Your task to perform on an android device: add a contact in the contacts app Image 0: 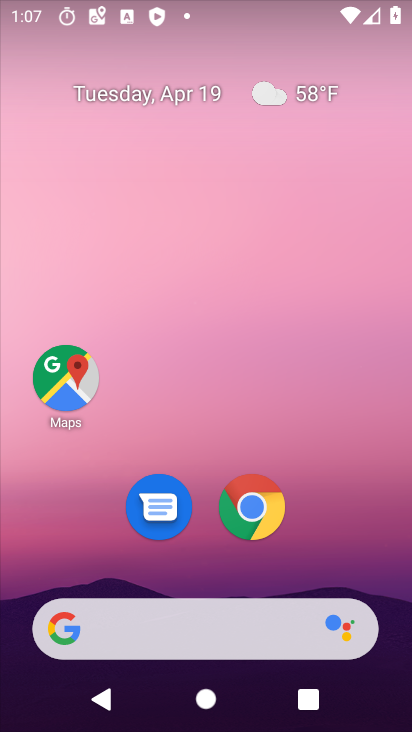
Step 0: drag from (218, 575) to (160, 73)
Your task to perform on an android device: add a contact in the contacts app Image 1: 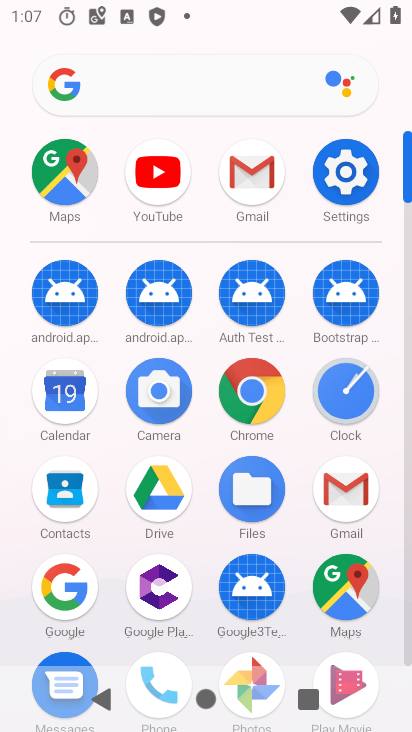
Step 1: click (71, 496)
Your task to perform on an android device: add a contact in the contacts app Image 2: 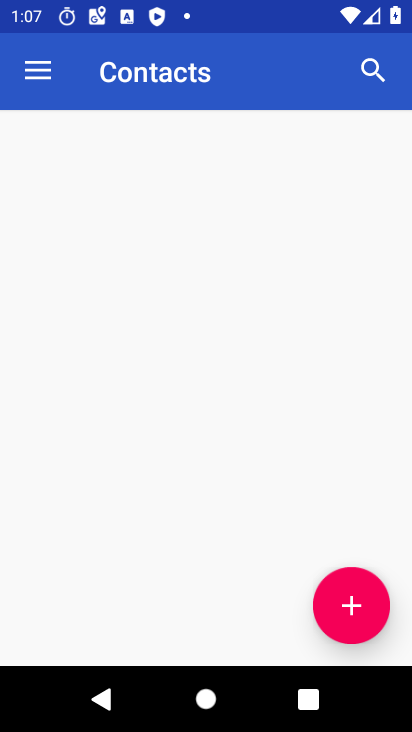
Step 2: click (355, 619)
Your task to perform on an android device: add a contact in the contacts app Image 3: 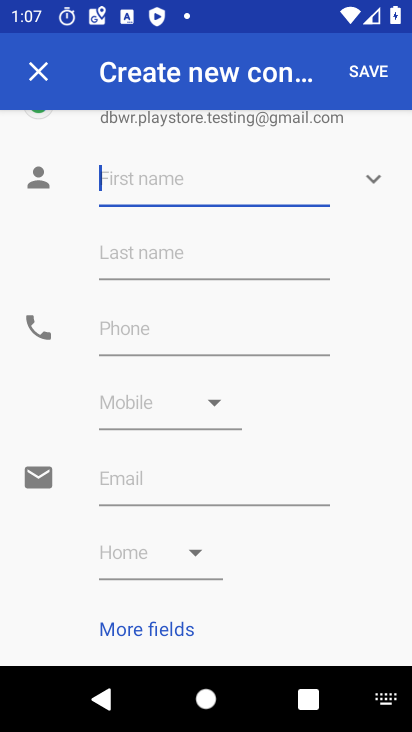
Step 3: type "bvnbvnb"
Your task to perform on an android device: add a contact in the contacts app Image 4: 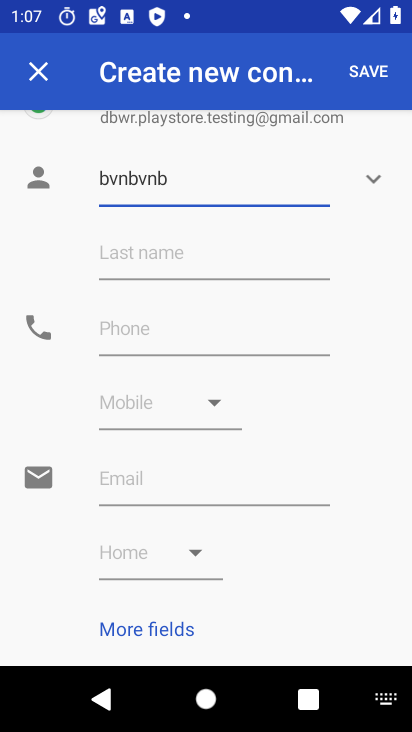
Step 4: click (188, 261)
Your task to perform on an android device: add a contact in the contacts app Image 5: 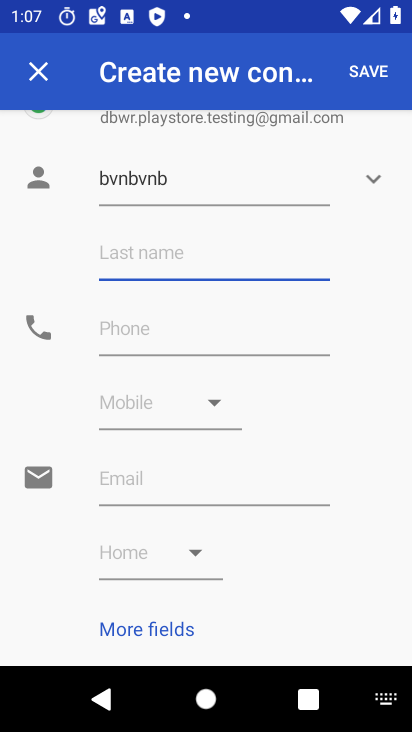
Step 5: type "jhjh"
Your task to perform on an android device: add a contact in the contacts app Image 6: 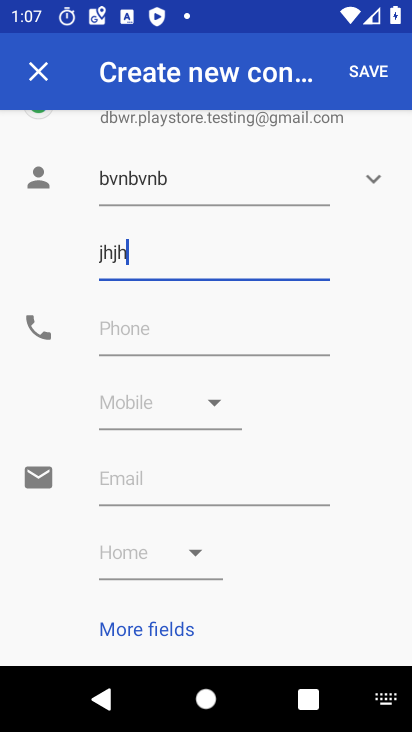
Step 6: click (266, 335)
Your task to perform on an android device: add a contact in the contacts app Image 7: 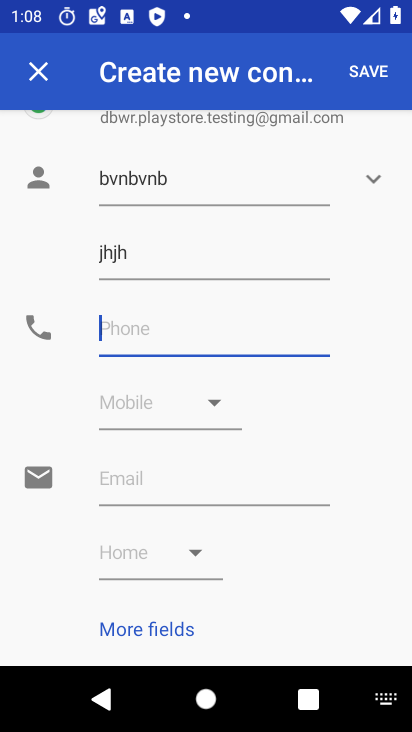
Step 7: type "657657656"
Your task to perform on an android device: add a contact in the contacts app Image 8: 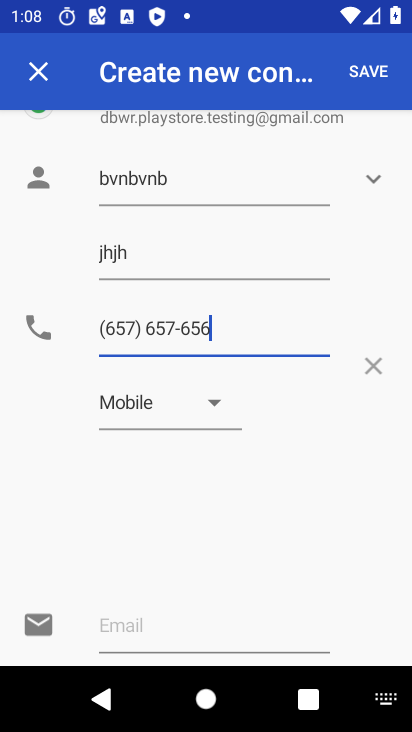
Step 8: type ""
Your task to perform on an android device: add a contact in the contacts app Image 9: 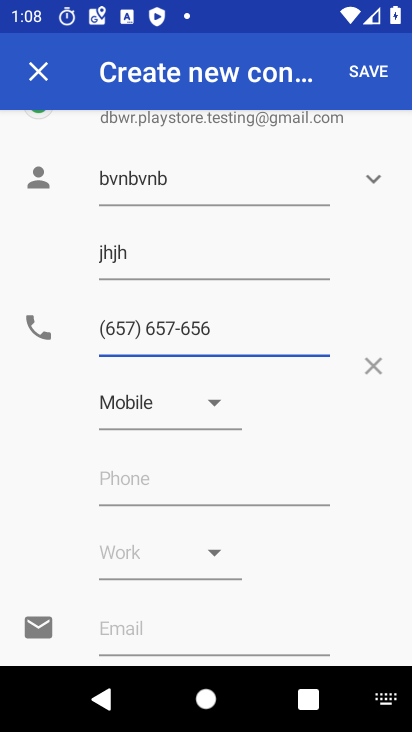
Step 9: click (365, 71)
Your task to perform on an android device: add a contact in the contacts app Image 10: 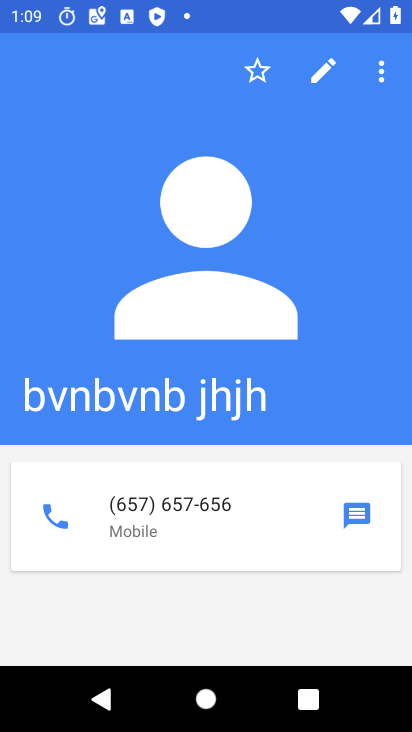
Step 10: task complete